Your task to perform on an android device: Open the web browser Image 0: 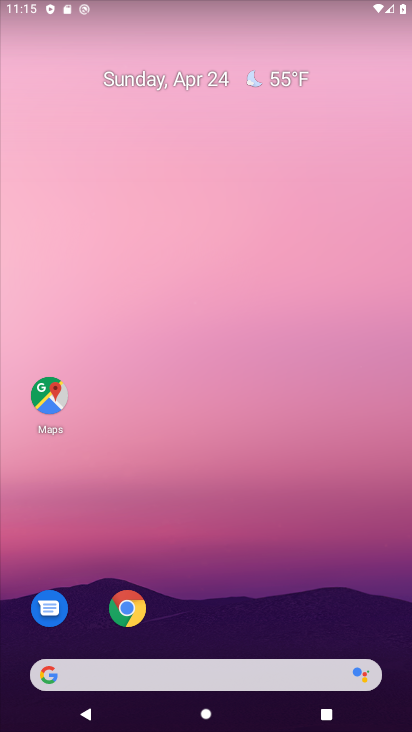
Step 0: click (133, 610)
Your task to perform on an android device: Open the web browser Image 1: 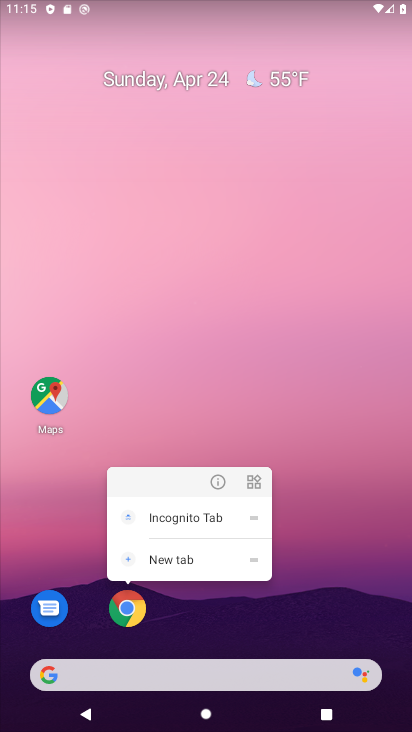
Step 1: click (125, 605)
Your task to perform on an android device: Open the web browser Image 2: 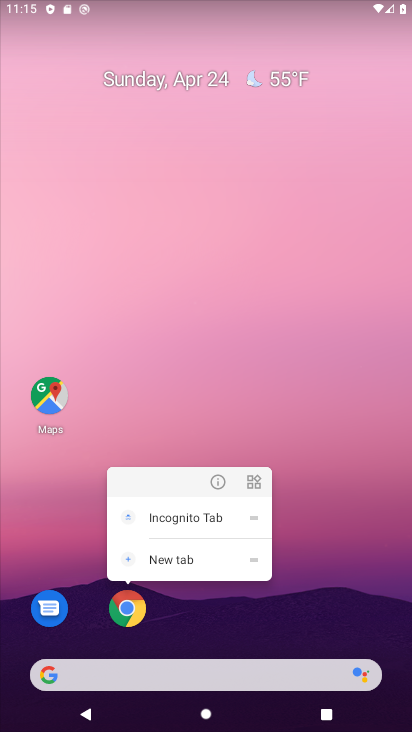
Step 2: click (129, 606)
Your task to perform on an android device: Open the web browser Image 3: 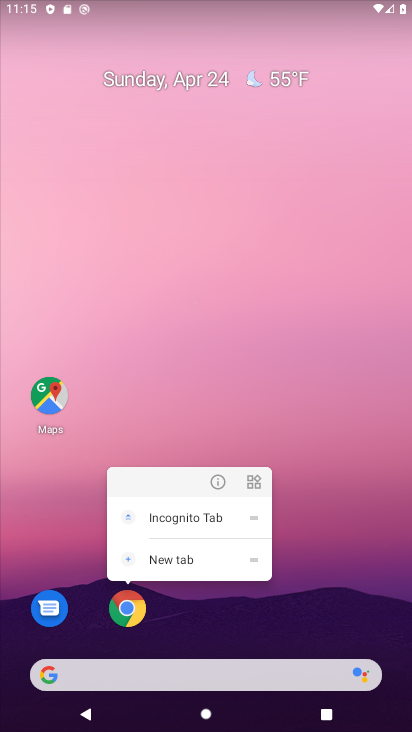
Step 3: click (131, 605)
Your task to perform on an android device: Open the web browser Image 4: 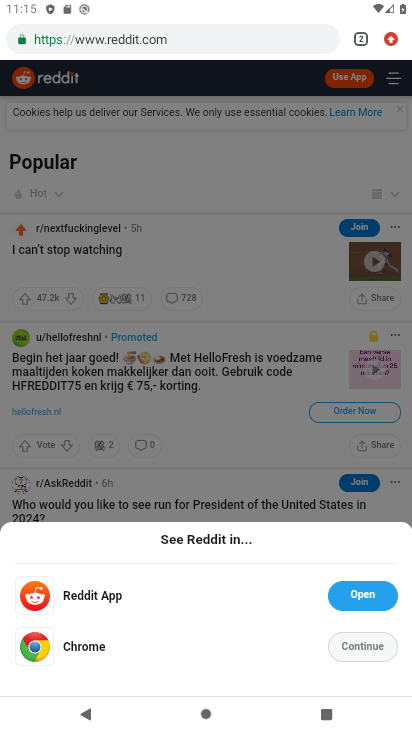
Step 4: task complete